Your task to perform on an android device: uninstall "Grab" Image 0: 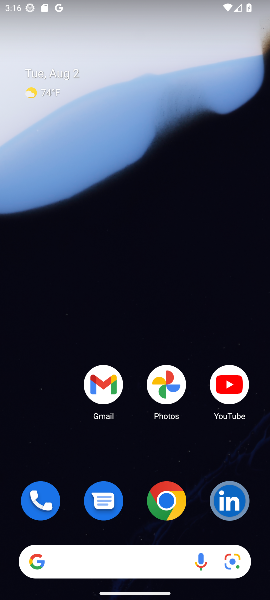
Step 0: drag from (140, 417) to (116, 44)
Your task to perform on an android device: uninstall "Grab" Image 1: 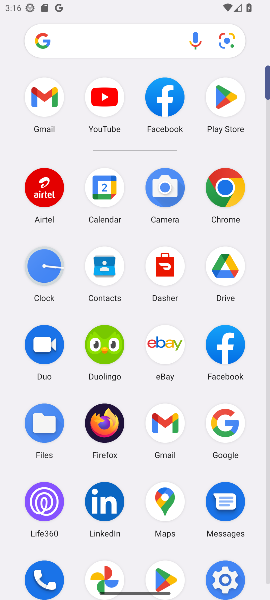
Step 1: click (224, 105)
Your task to perform on an android device: uninstall "Grab" Image 2: 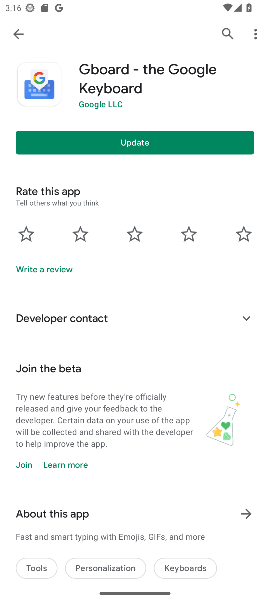
Step 2: click (223, 31)
Your task to perform on an android device: uninstall "Grab" Image 3: 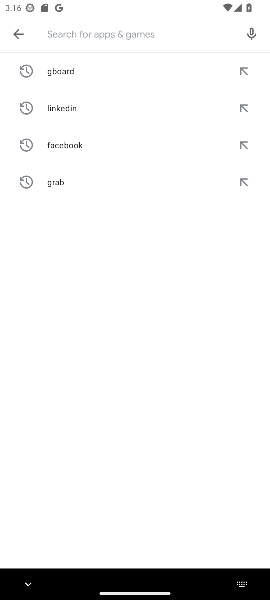
Step 3: type "Grab"
Your task to perform on an android device: uninstall "Grab" Image 4: 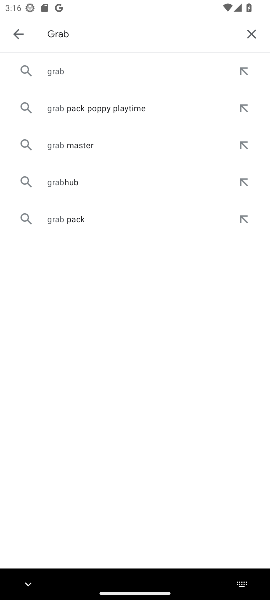
Step 4: click (55, 74)
Your task to perform on an android device: uninstall "Grab" Image 5: 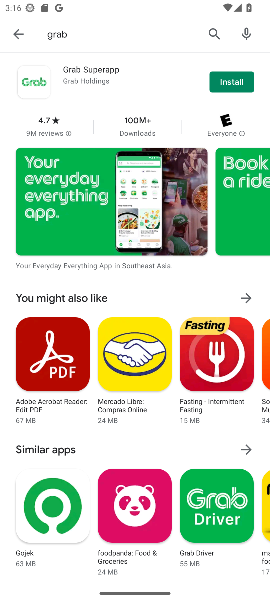
Step 5: task complete